Your task to perform on an android device: open app "Google Translate" (install if not already installed) Image 0: 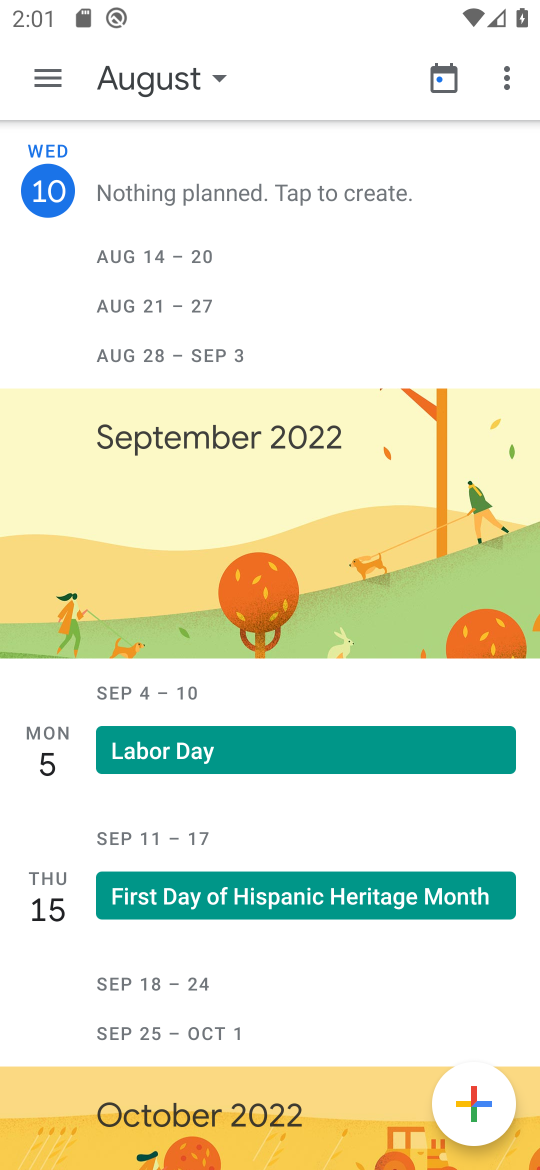
Step 0: press home button
Your task to perform on an android device: open app "Google Translate" (install if not already installed) Image 1: 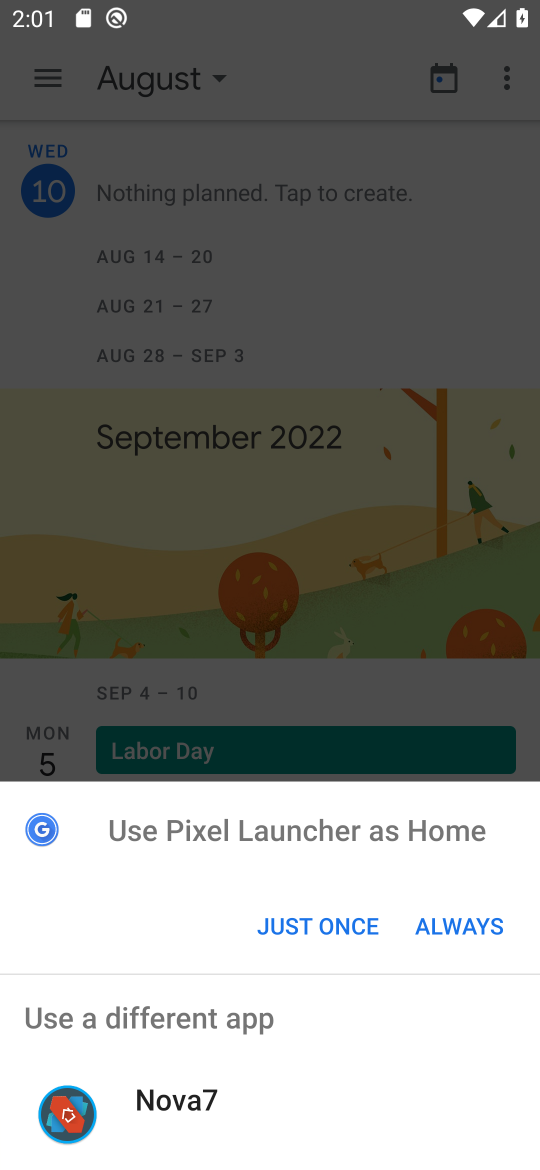
Step 1: click (343, 921)
Your task to perform on an android device: open app "Google Translate" (install if not already installed) Image 2: 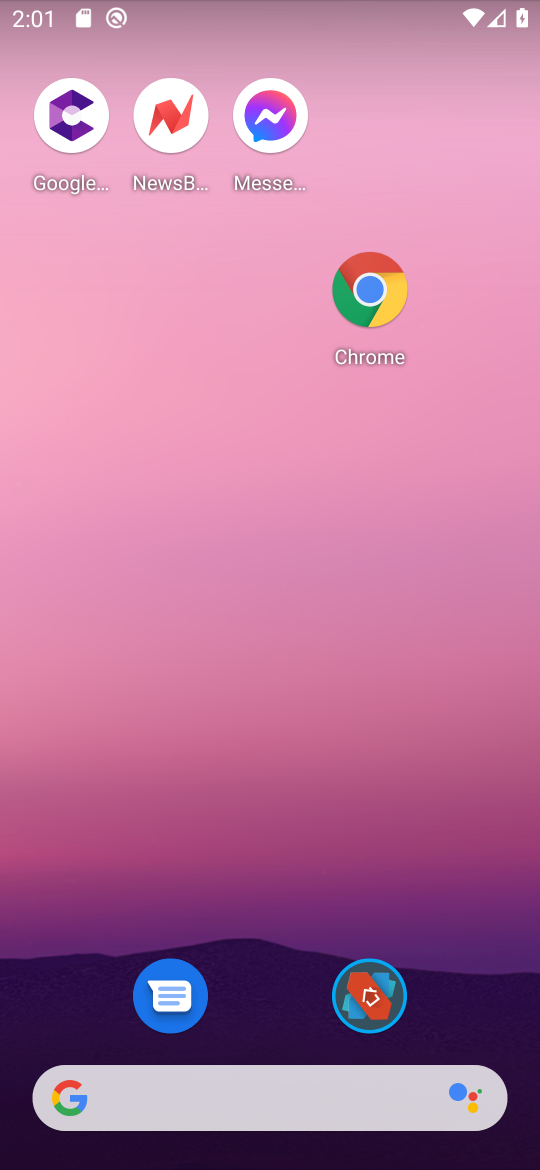
Step 2: drag from (241, 997) to (236, 121)
Your task to perform on an android device: open app "Google Translate" (install if not already installed) Image 3: 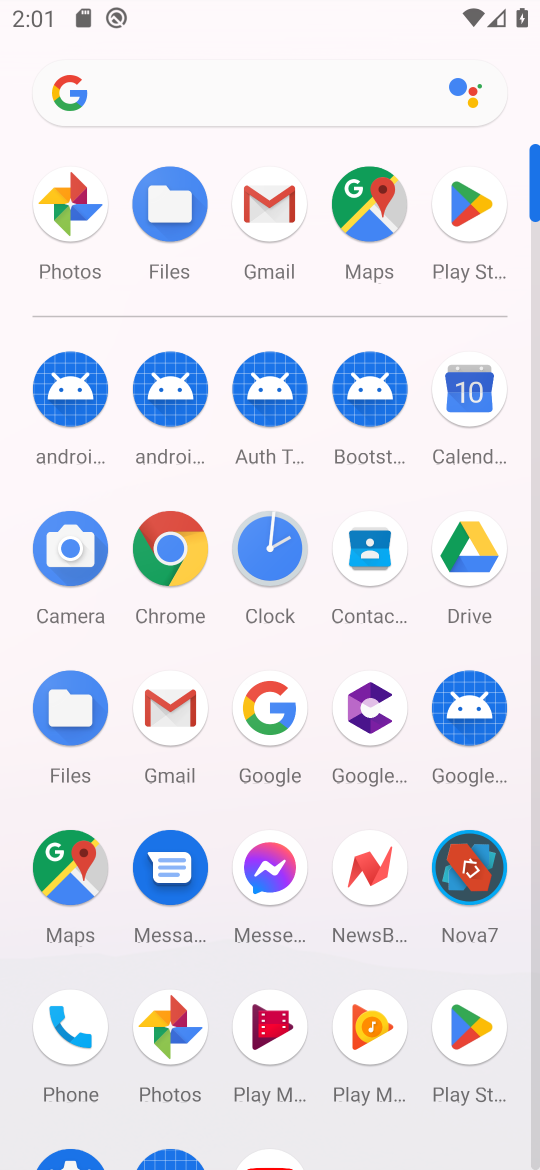
Step 3: click (475, 235)
Your task to perform on an android device: open app "Google Translate" (install if not already installed) Image 4: 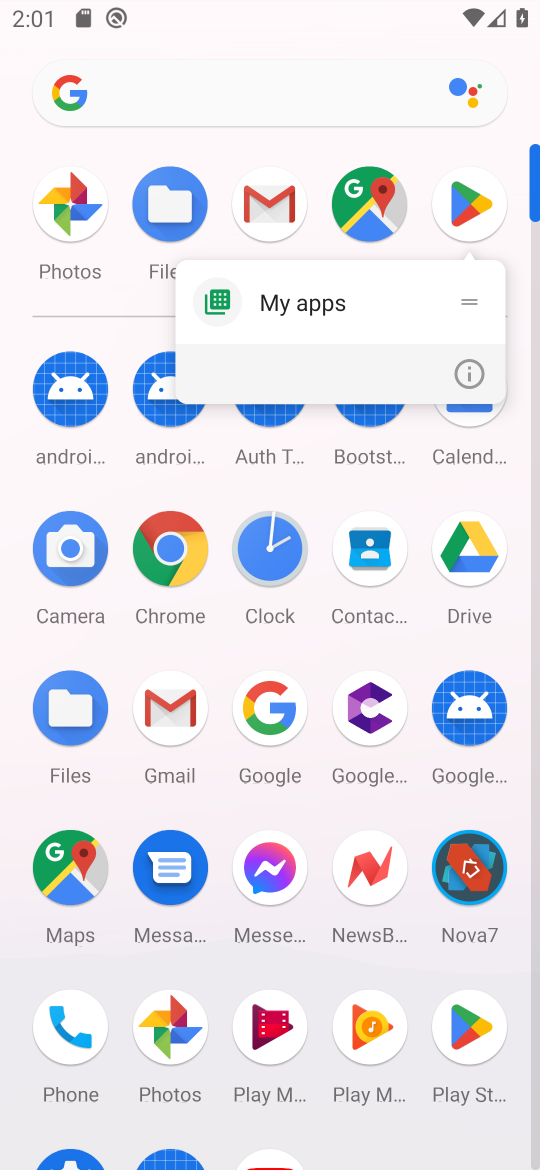
Step 4: click (459, 203)
Your task to perform on an android device: open app "Google Translate" (install if not already installed) Image 5: 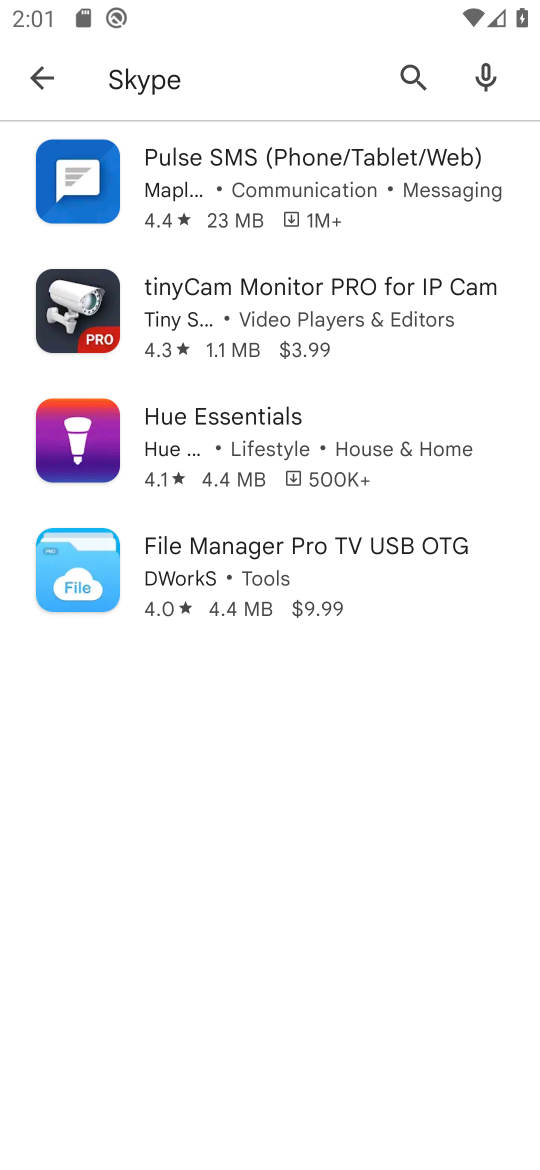
Step 5: press back button
Your task to perform on an android device: open app "Google Translate" (install if not already installed) Image 6: 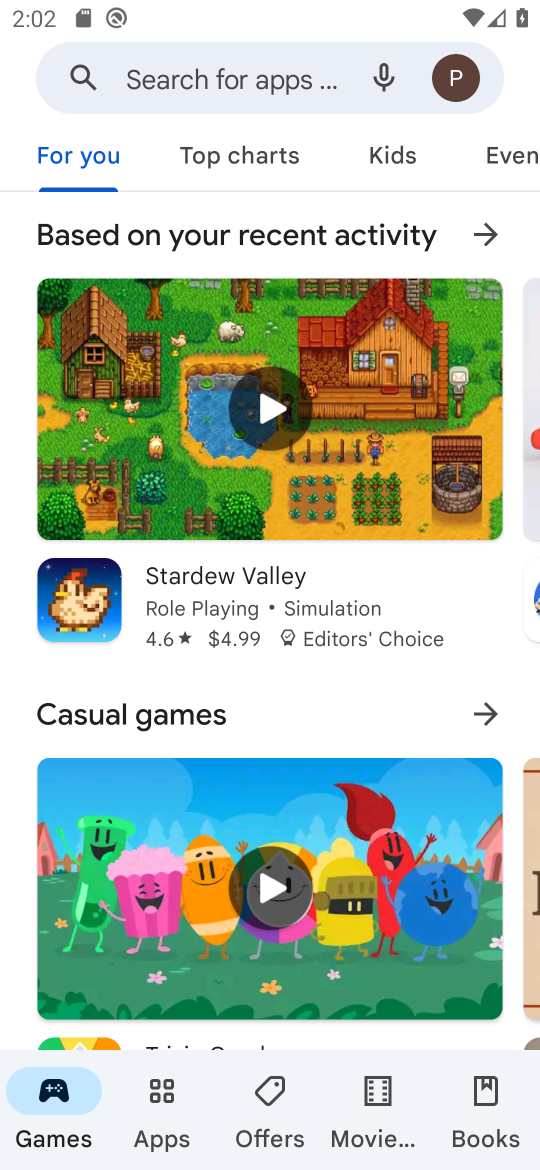
Step 6: click (166, 93)
Your task to perform on an android device: open app "Google Translate" (install if not already installed) Image 7: 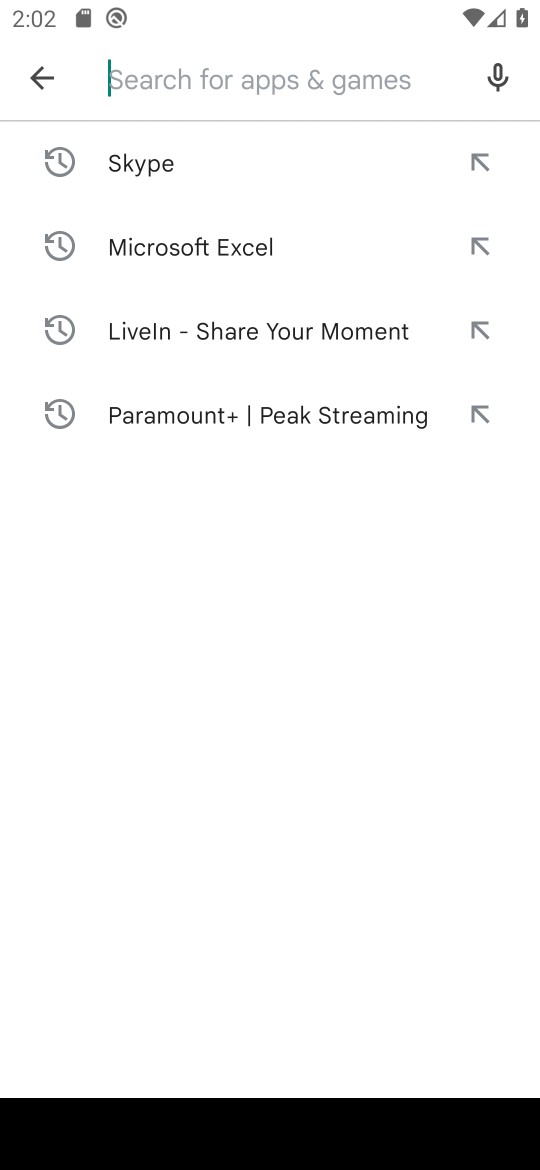
Step 7: type "Google Translate"
Your task to perform on an android device: open app "Google Translate" (install if not already installed) Image 8: 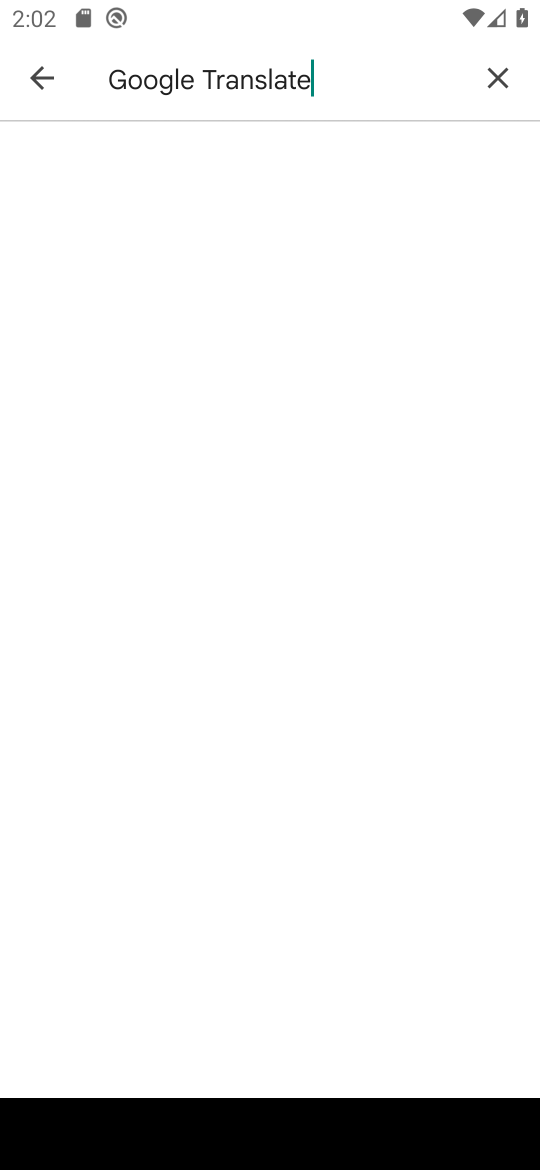
Step 8: press enter
Your task to perform on an android device: open app "Google Translate" (install if not already installed) Image 9: 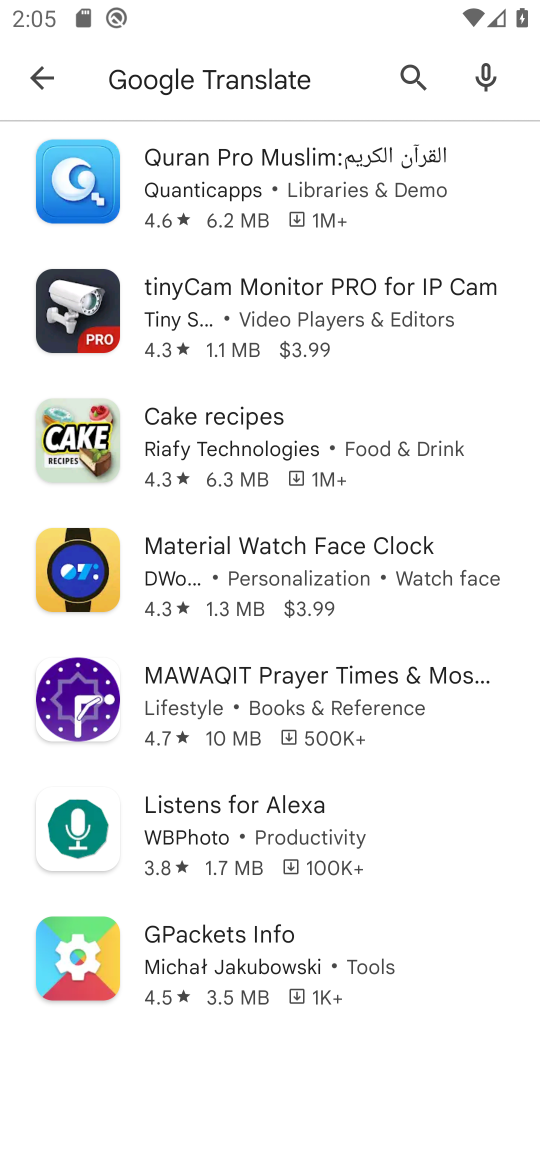
Step 9: task complete